Your task to perform on an android device: turn on showing notifications on the lock screen Image 0: 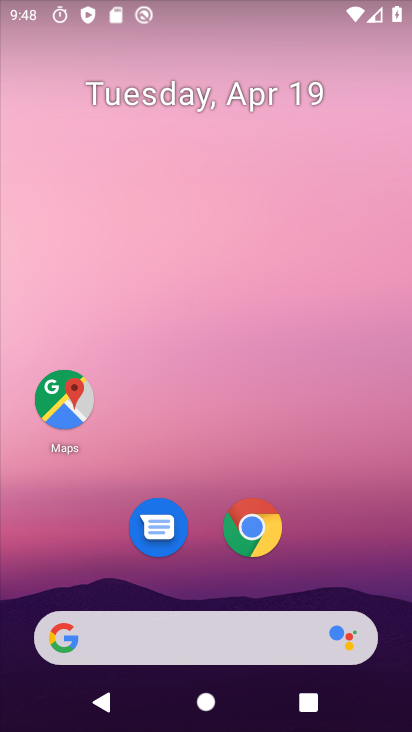
Step 0: drag from (258, 673) to (333, 59)
Your task to perform on an android device: turn on showing notifications on the lock screen Image 1: 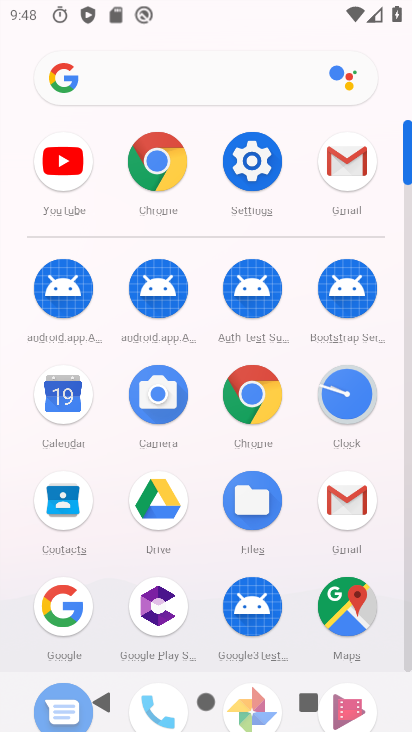
Step 1: click (252, 155)
Your task to perform on an android device: turn on showing notifications on the lock screen Image 2: 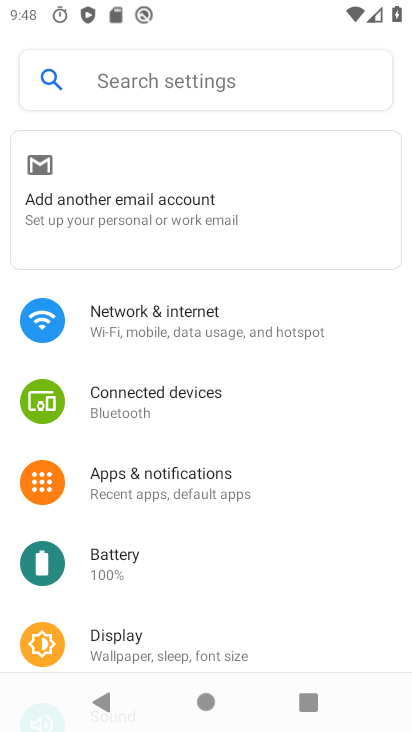
Step 2: click (219, 88)
Your task to perform on an android device: turn on showing notifications on the lock screen Image 3: 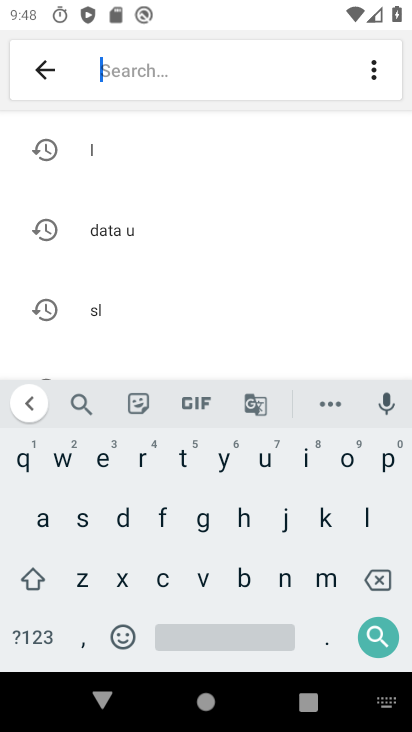
Step 3: click (283, 585)
Your task to perform on an android device: turn on showing notifications on the lock screen Image 4: 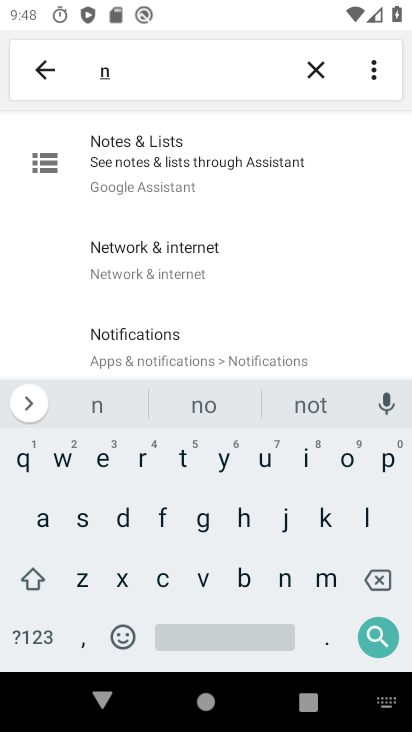
Step 4: click (351, 467)
Your task to perform on an android device: turn on showing notifications on the lock screen Image 5: 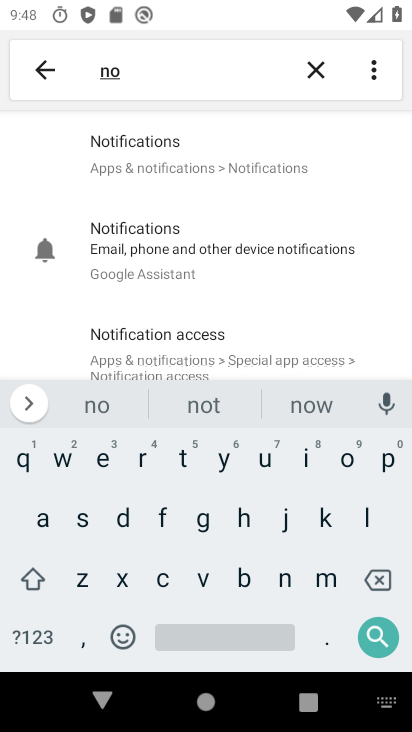
Step 5: click (212, 169)
Your task to perform on an android device: turn on showing notifications on the lock screen Image 6: 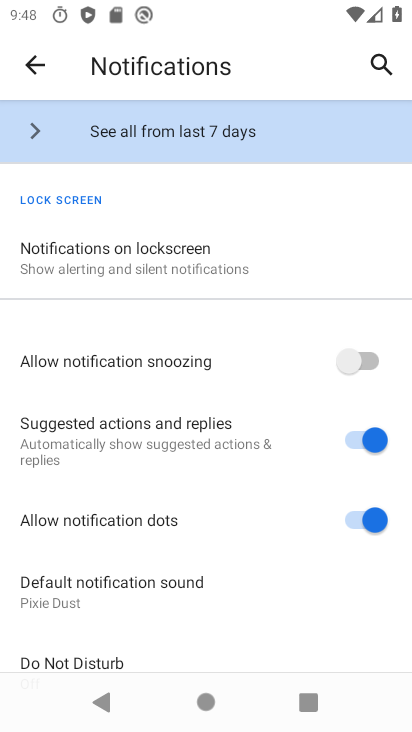
Step 6: click (147, 262)
Your task to perform on an android device: turn on showing notifications on the lock screen Image 7: 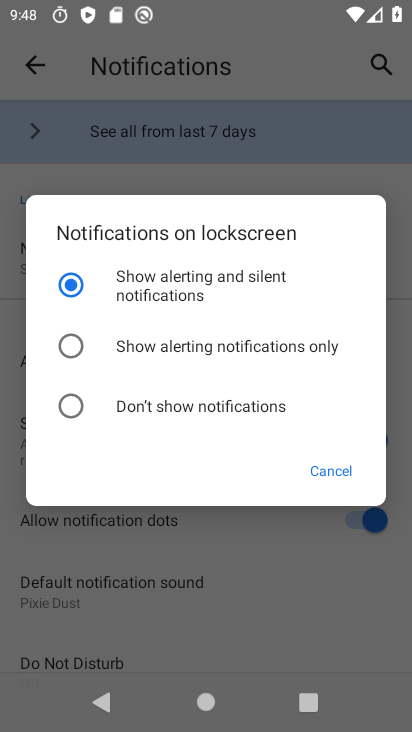
Step 7: task complete